Your task to perform on an android device: Go to Android settings Image 0: 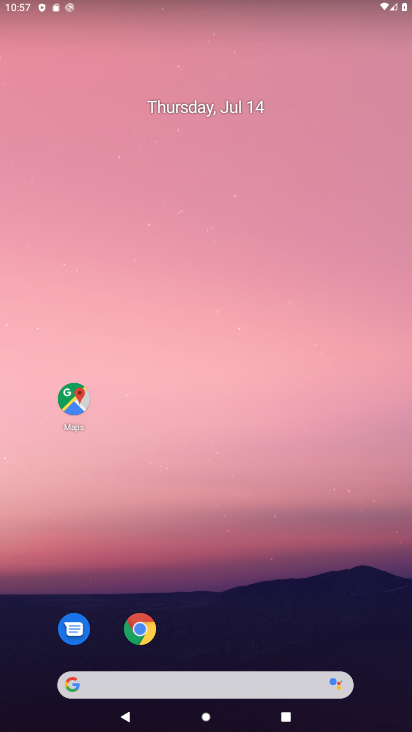
Step 0: drag from (230, 641) to (300, 82)
Your task to perform on an android device: Go to Android settings Image 1: 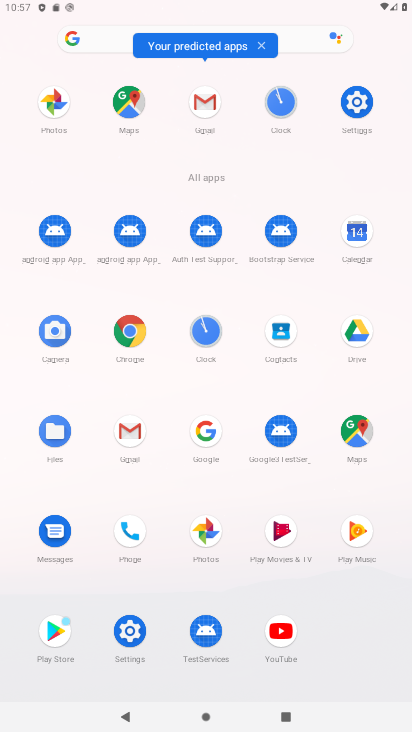
Step 1: click (139, 631)
Your task to perform on an android device: Go to Android settings Image 2: 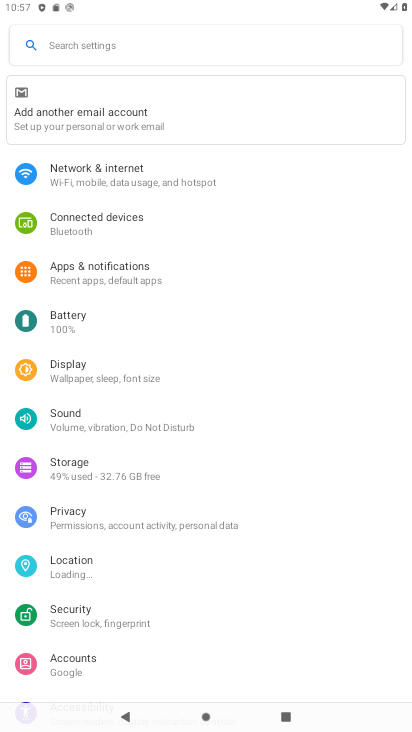
Step 2: drag from (141, 649) to (167, 199)
Your task to perform on an android device: Go to Android settings Image 3: 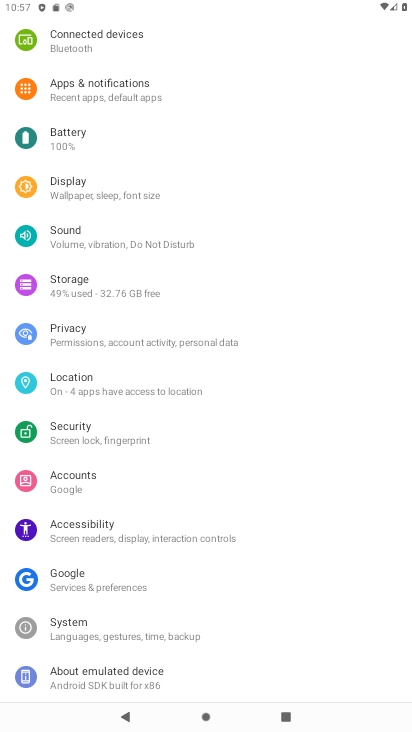
Step 3: click (100, 678)
Your task to perform on an android device: Go to Android settings Image 4: 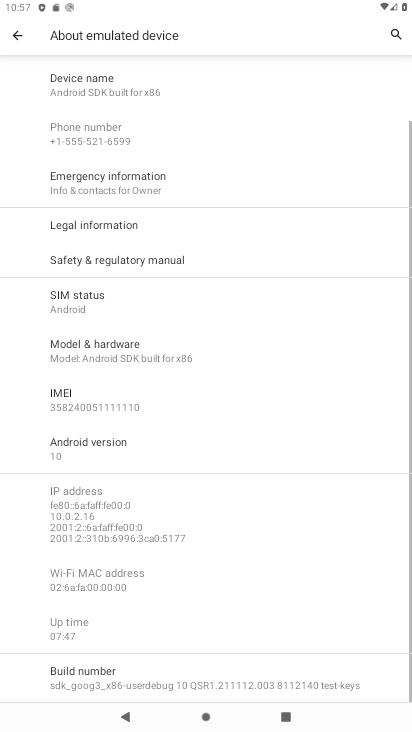
Step 4: click (134, 459)
Your task to perform on an android device: Go to Android settings Image 5: 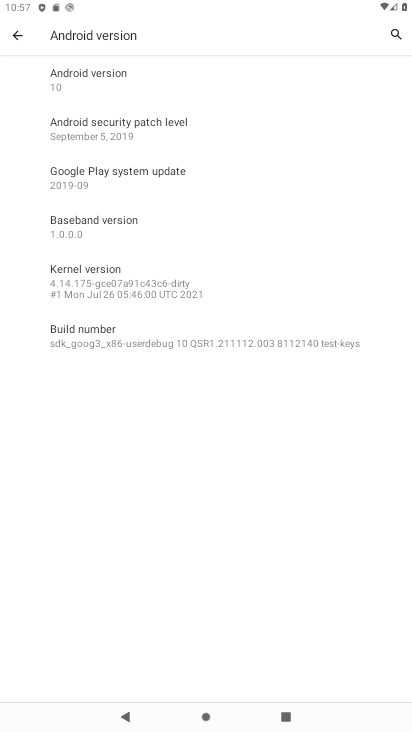
Step 5: task complete